Your task to perform on an android device: Is it going to rain this weekend? Image 0: 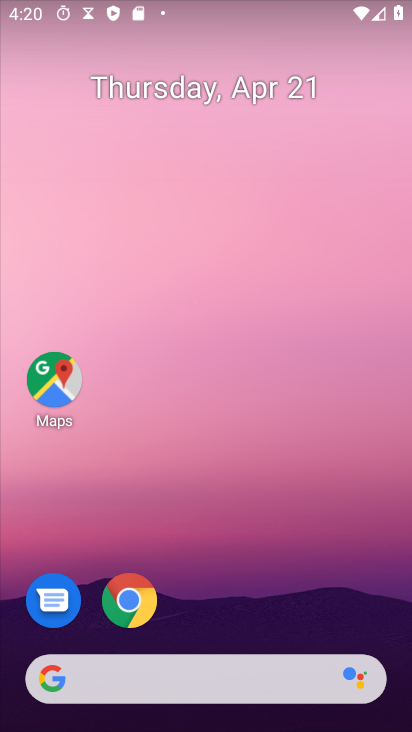
Step 0: drag from (219, 582) to (281, 135)
Your task to perform on an android device: Is it going to rain this weekend? Image 1: 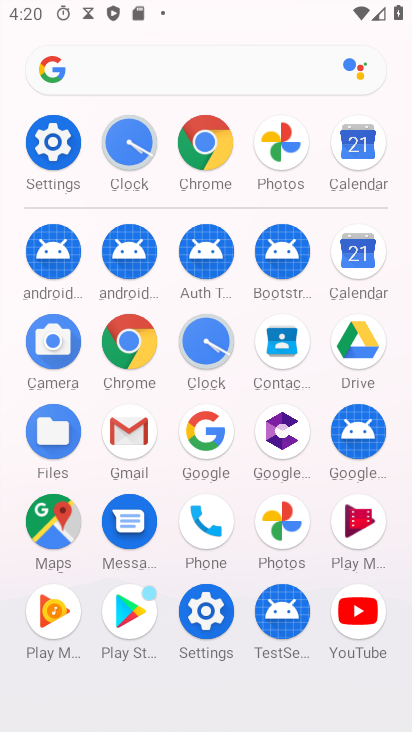
Step 1: click (204, 431)
Your task to perform on an android device: Is it going to rain this weekend? Image 2: 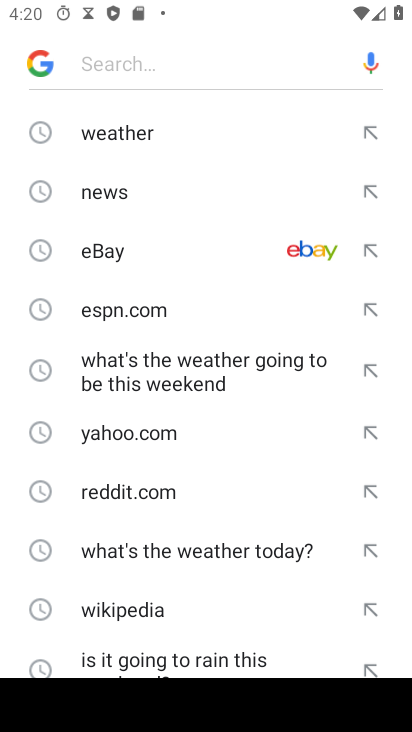
Step 2: drag from (206, 449) to (223, 379)
Your task to perform on an android device: Is it going to rain this weekend? Image 3: 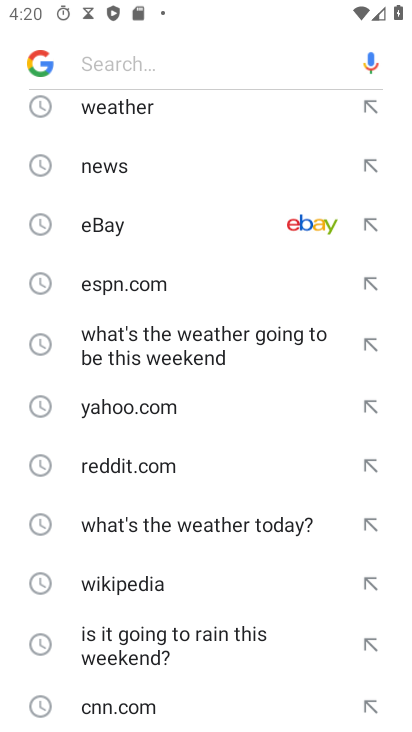
Step 3: click (116, 632)
Your task to perform on an android device: Is it going to rain this weekend? Image 4: 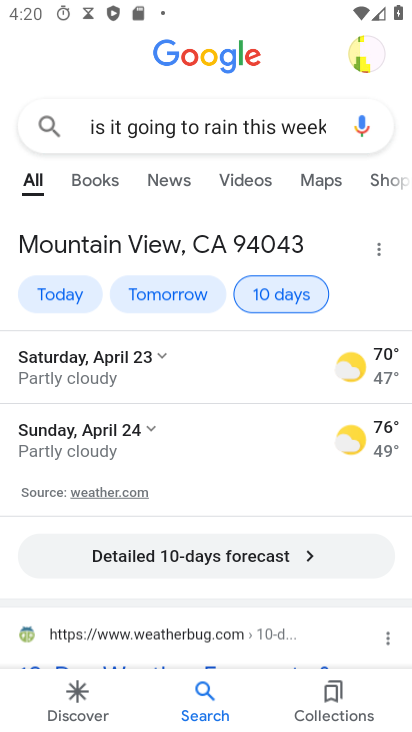
Step 4: task complete